Your task to perform on an android device: turn on translation in the chrome app Image 0: 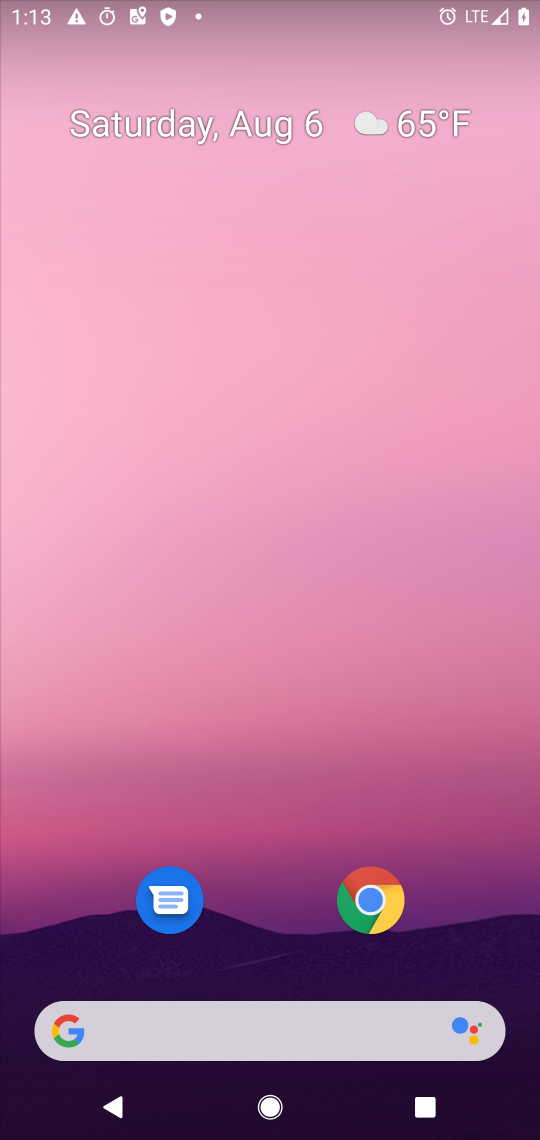
Step 0: click (371, 910)
Your task to perform on an android device: turn on translation in the chrome app Image 1: 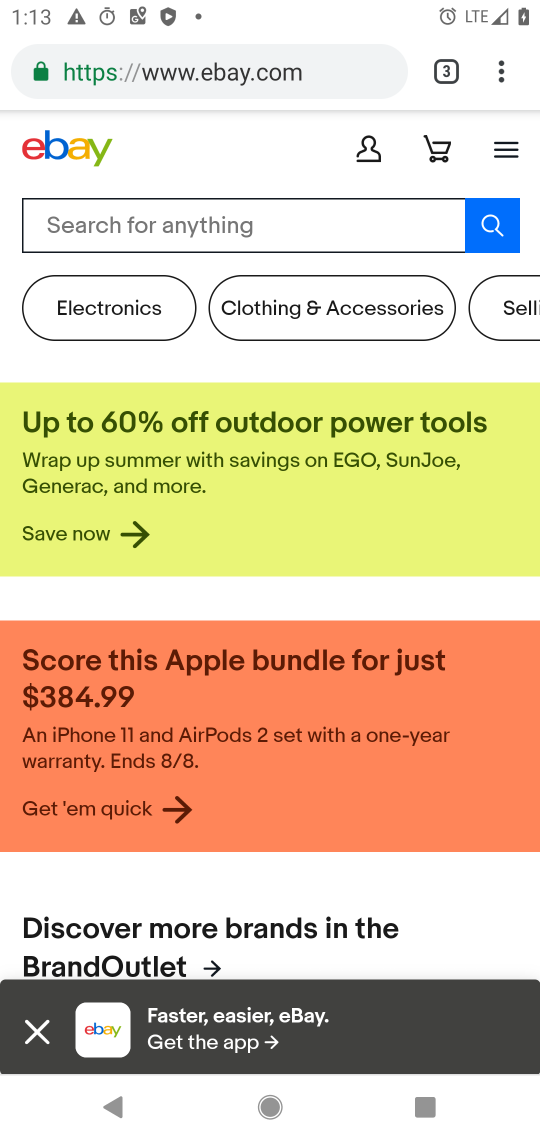
Step 1: click (502, 77)
Your task to perform on an android device: turn on translation in the chrome app Image 2: 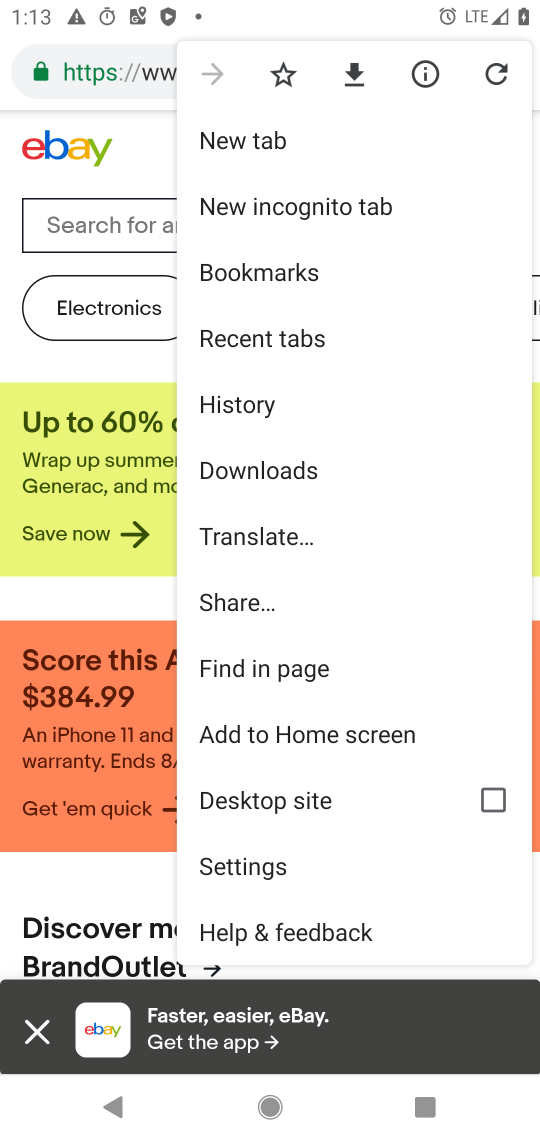
Step 2: click (250, 870)
Your task to perform on an android device: turn on translation in the chrome app Image 3: 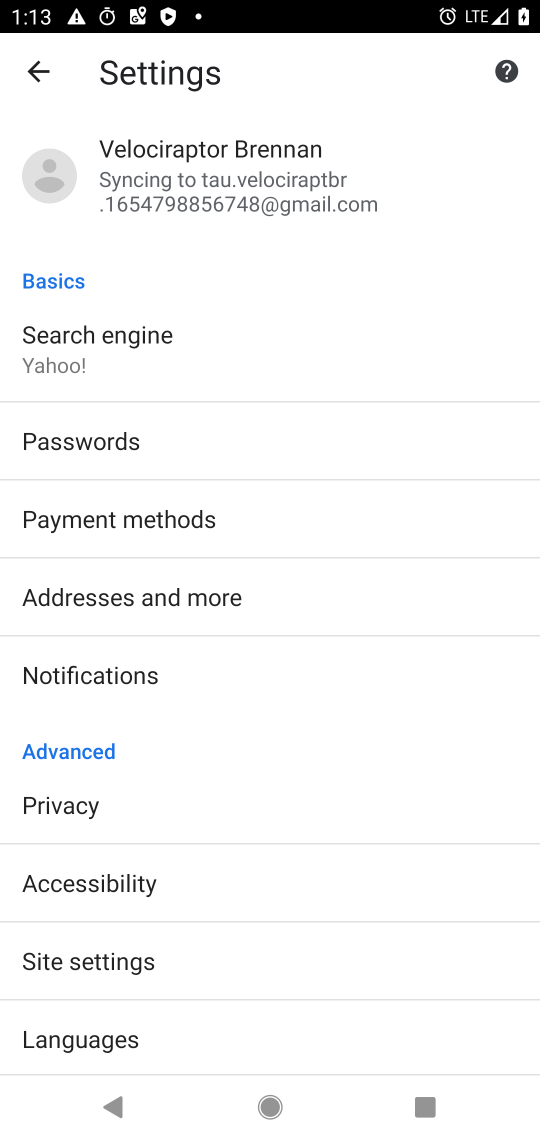
Step 3: click (90, 1034)
Your task to perform on an android device: turn on translation in the chrome app Image 4: 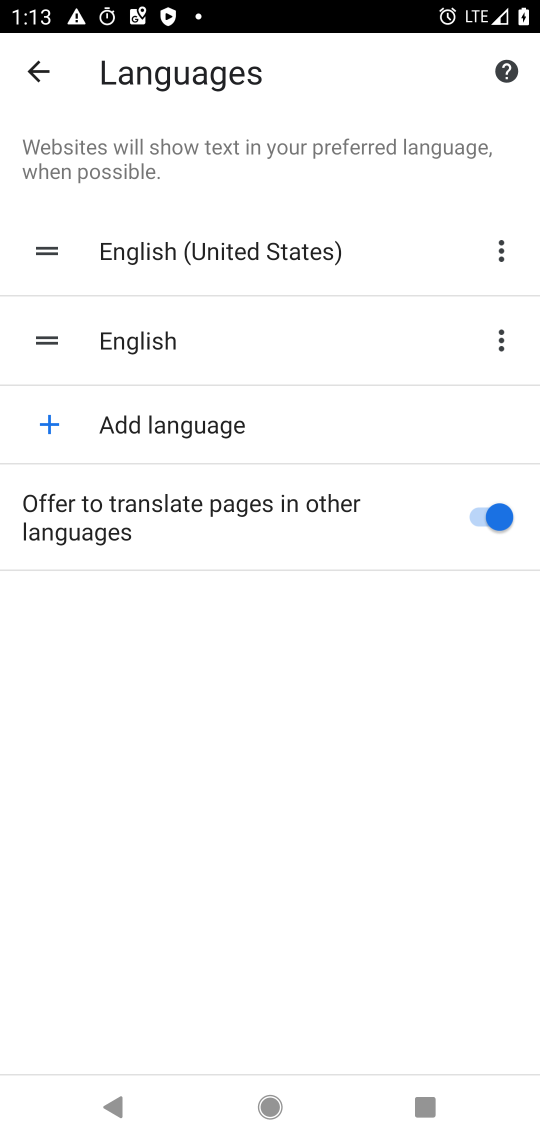
Step 4: task complete